Your task to perform on an android device: Open the calendar app, open the side menu, and click the "Day" option Image 0: 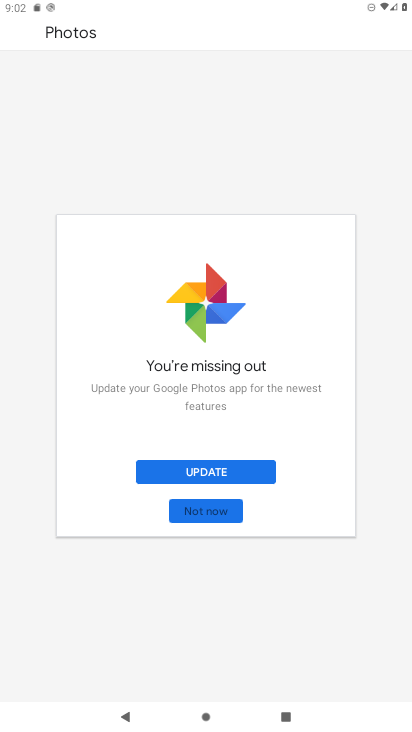
Step 0: press home button
Your task to perform on an android device: Open the calendar app, open the side menu, and click the "Day" option Image 1: 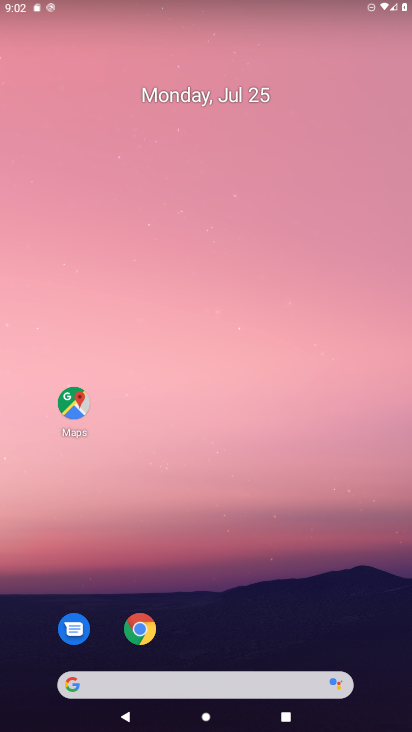
Step 1: drag from (275, 633) to (259, 0)
Your task to perform on an android device: Open the calendar app, open the side menu, and click the "Day" option Image 2: 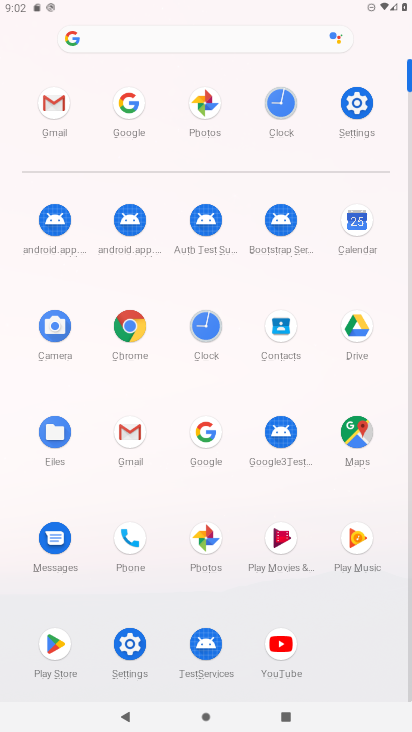
Step 2: click (356, 224)
Your task to perform on an android device: Open the calendar app, open the side menu, and click the "Day" option Image 3: 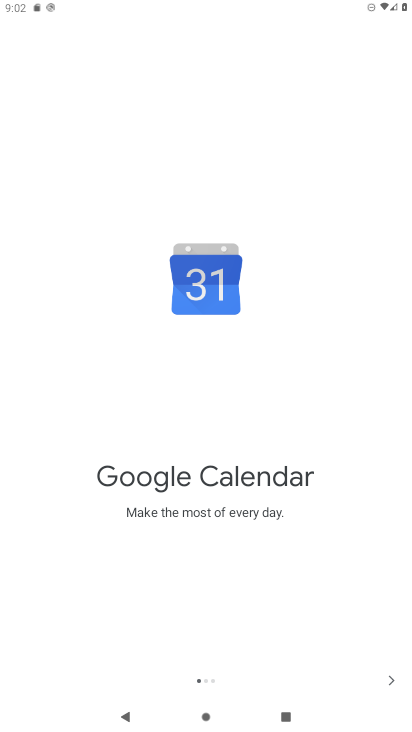
Step 3: click (385, 685)
Your task to perform on an android device: Open the calendar app, open the side menu, and click the "Day" option Image 4: 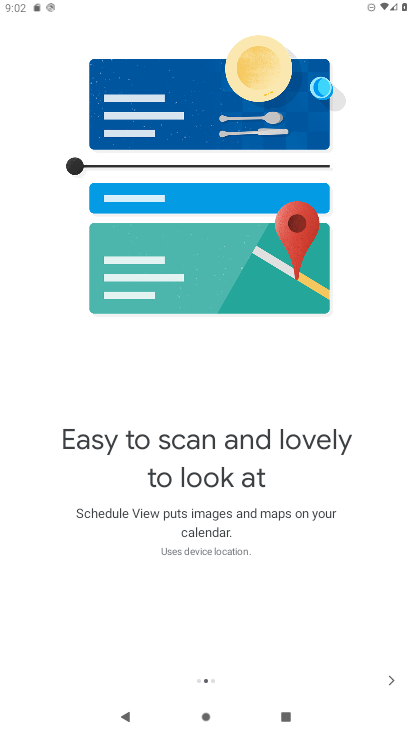
Step 4: click (385, 685)
Your task to perform on an android device: Open the calendar app, open the side menu, and click the "Day" option Image 5: 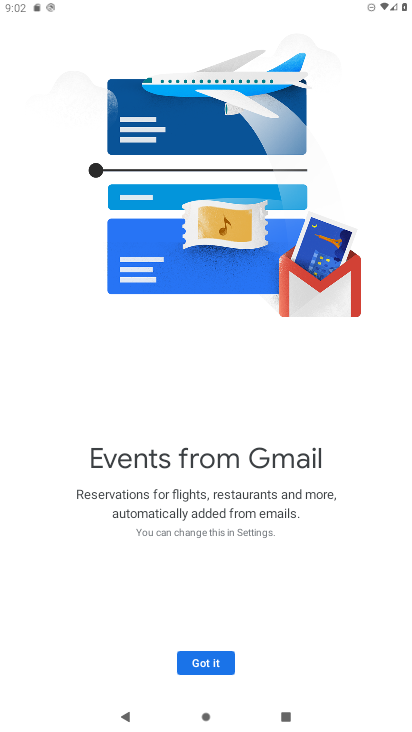
Step 5: click (212, 653)
Your task to perform on an android device: Open the calendar app, open the side menu, and click the "Day" option Image 6: 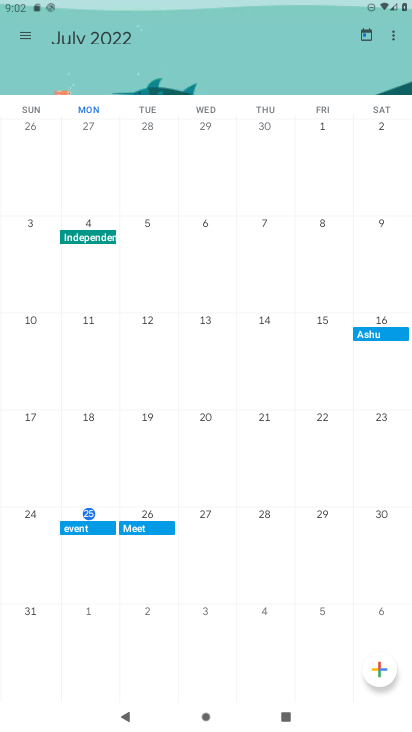
Step 6: click (24, 41)
Your task to perform on an android device: Open the calendar app, open the side menu, and click the "Day" option Image 7: 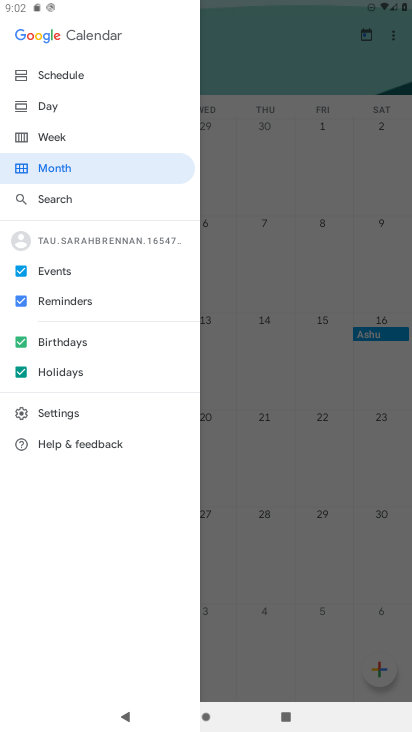
Step 7: click (39, 103)
Your task to perform on an android device: Open the calendar app, open the side menu, and click the "Day" option Image 8: 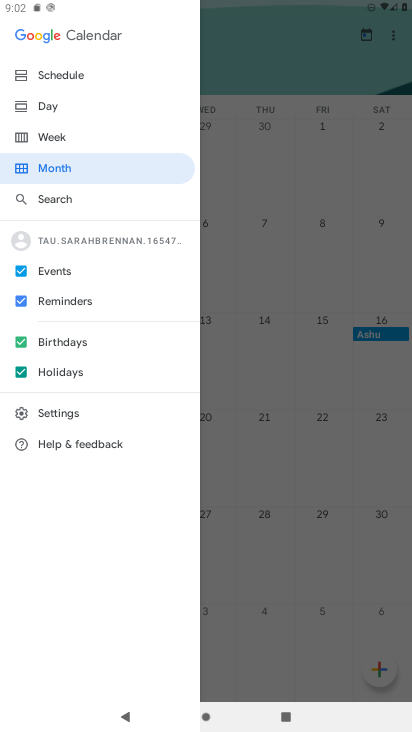
Step 8: click (33, 104)
Your task to perform on an android device: Open the calendar app, open the side menu, and click the "Day" option Image 9: 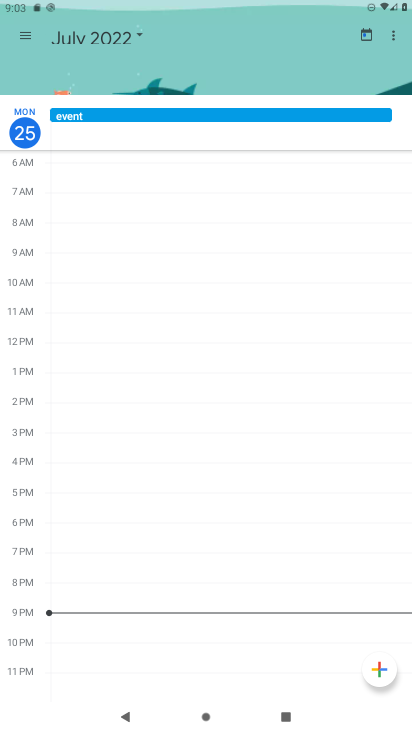
Step 9: task complete